Your task to perform on an android device: change notification settings in the gmail app Image 0: 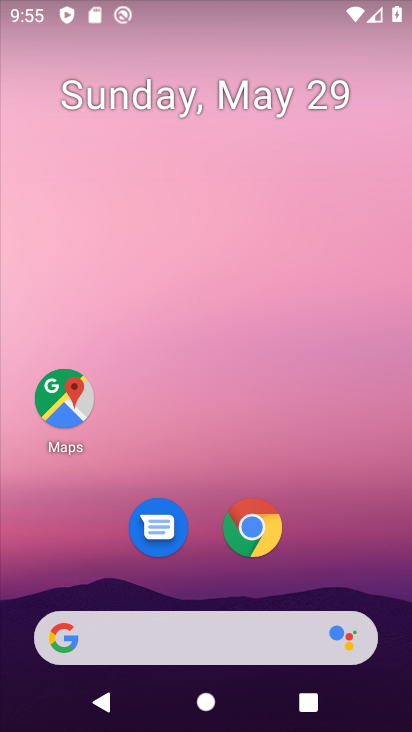
Step 0: drag from (336, 560) to (322, 118)
Your task to perform on an android device: change notification settings in the gmail app Image 1: 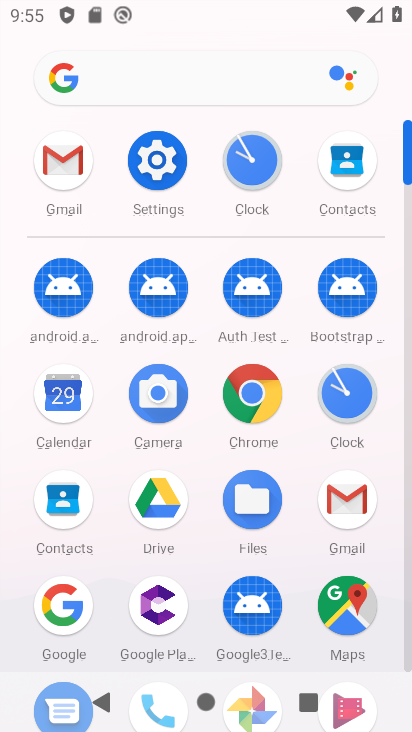
Step 1: click (70, 156)
Your task to perform on an android device: change notification settings in the gmail app Image 2: 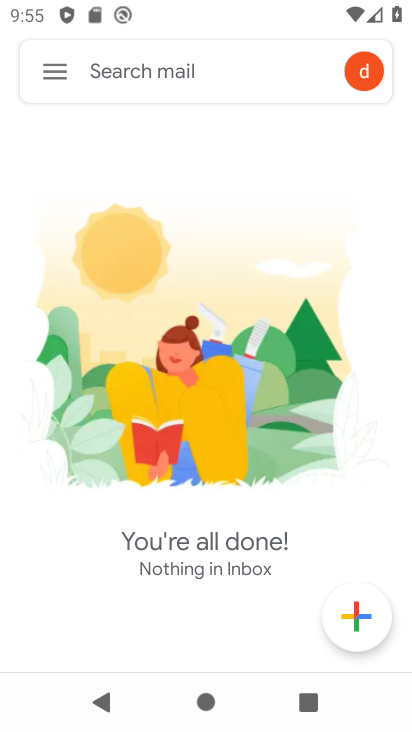
Step 2: click (55, 61)
Your task to perform on an android device: change notification settings in the gmail app Image 3: 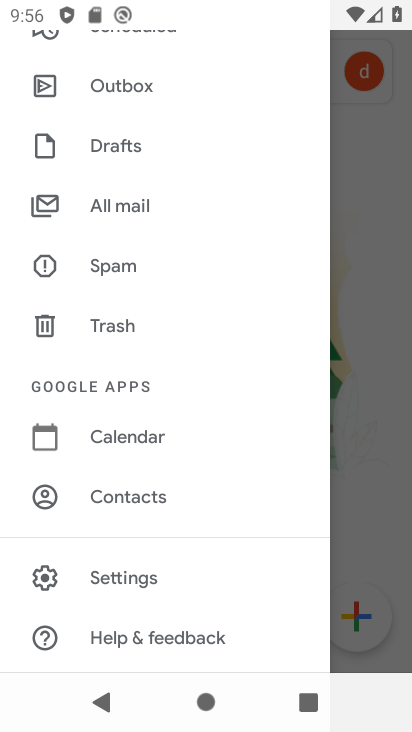
Step 3: click (144, 575)
Your task to perform on an android device: change notification settings in the gmail app Image 4: 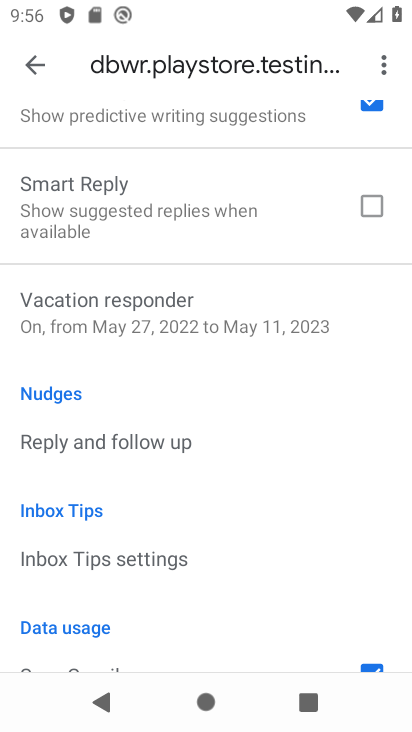
Step 4: drag from (200, 171) to (219, 686)
Your task to perform on an android device: change notification settings in the gmail app Image 5: 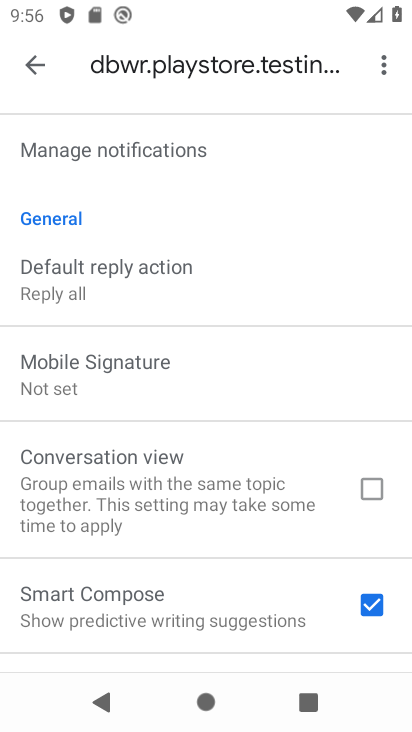
Step 5: drag from (209, 237) to (230, 575)
Your task to perform on an android device: change notification settings in the gmail app Image 6: 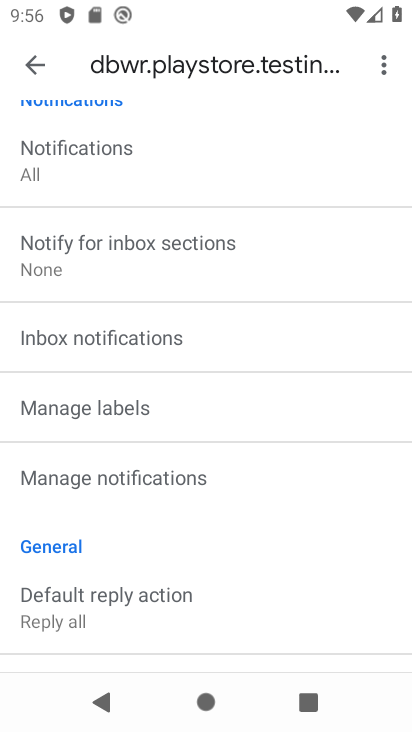
Step 6: drag from (222, 228) to (262, 211)
Your task to perform on an android device: change notification settings in the gmail app Image 7: 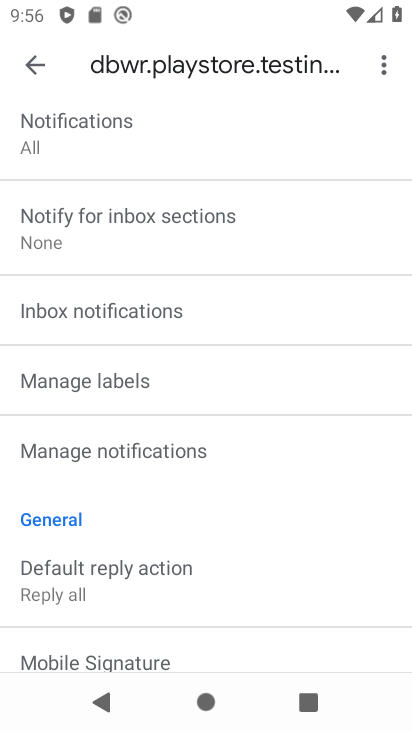
Step 7: click (156, 446)
Your task to perform on an android device: change notification settings in the gmail app Image 8: 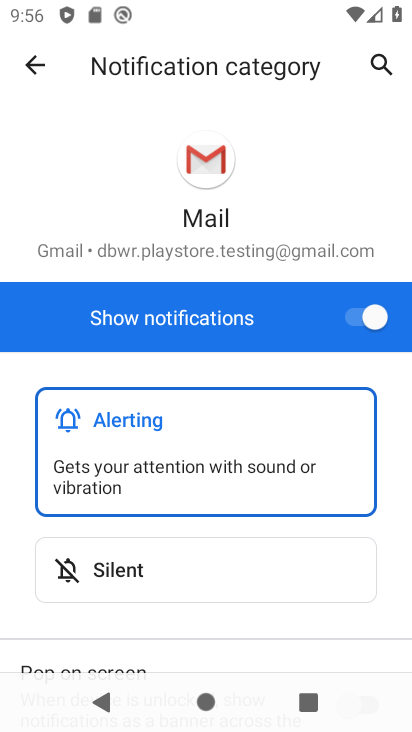
Step 8: task complete